Your task to perform on an android device: Check the news Image 0: 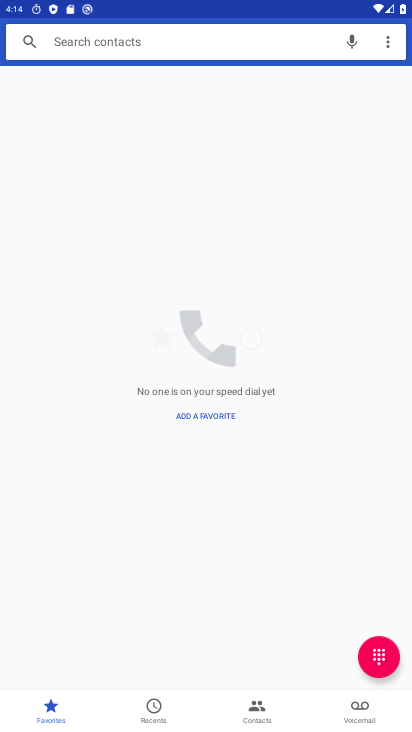
Step 0: press home button
Your task to perform on an android device: Check the news Image 1: 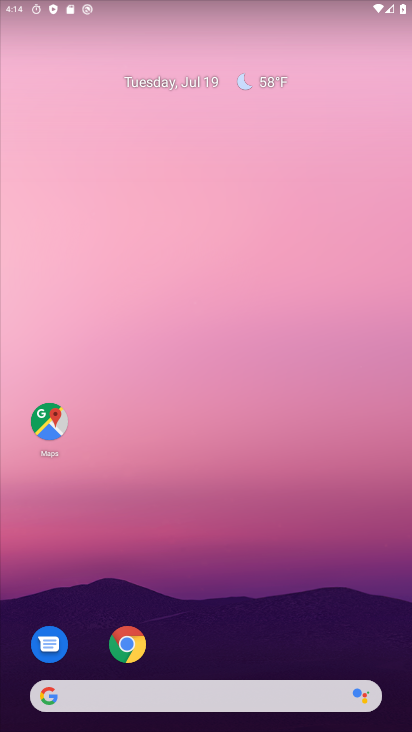
Step 1: drag from (274, 126) to (274, 87)
Your task to perform on an android device: Check the news Image 2: 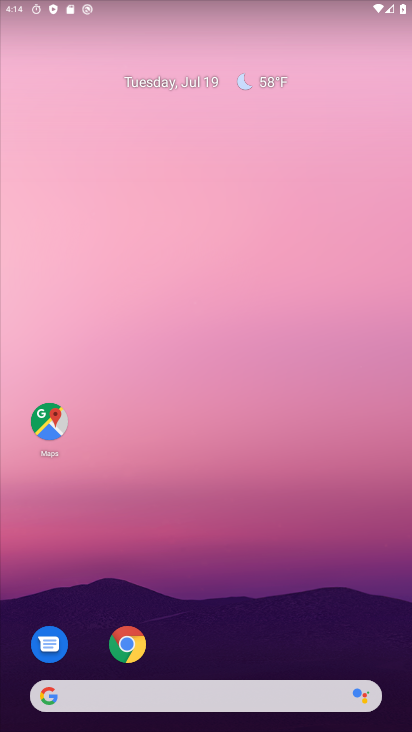
Step 2: drag from (297, 515) to (271, 56)
Your task to perform on an android device: Check the news Image 3: 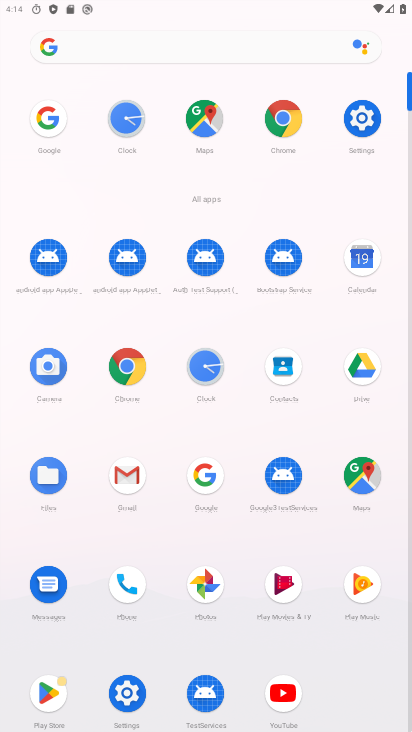
Step 3: click (281, 120)
Your task to perform on an android device: Check the news Image 4: 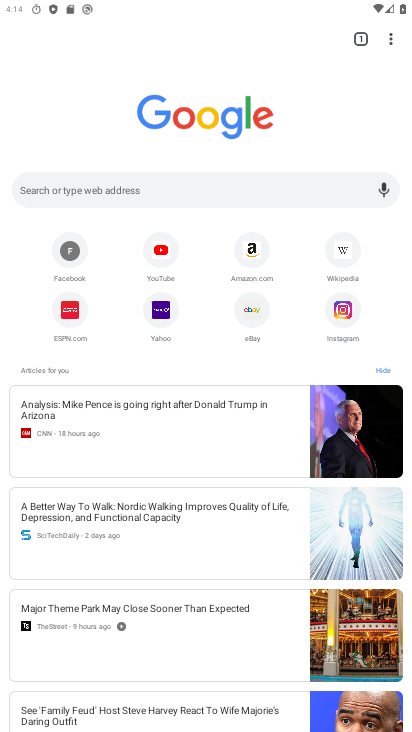
Step 4: click (249, 173)
Your task to perform on an android device: Check the news Image 5: 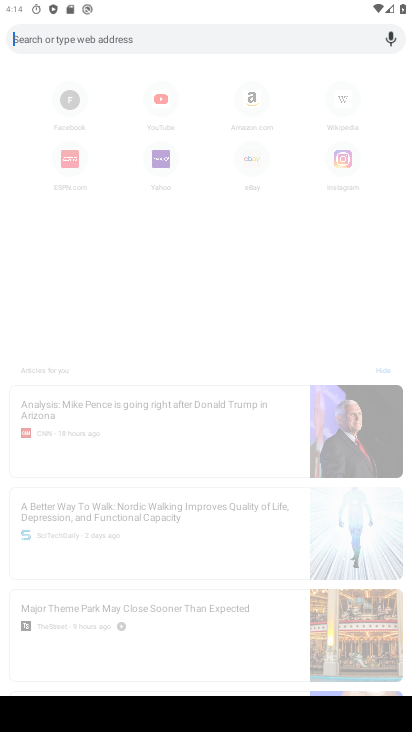
Step 5: type "news"
Your task to perform on an android device: Check the news Image 6: 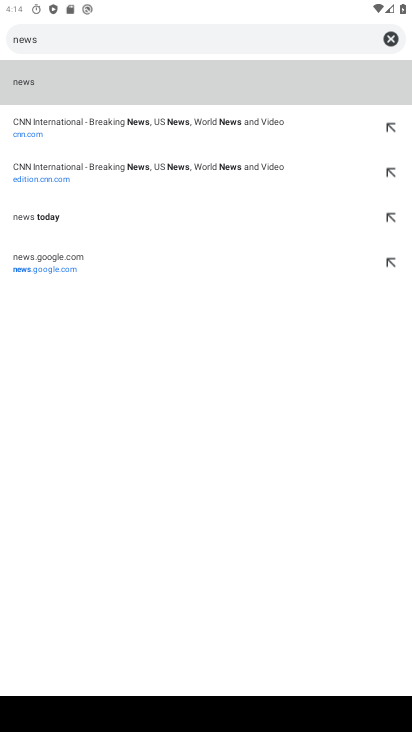
Step 6: click (17, 80)
Your task to perform on an android device: Check the news Image 7: 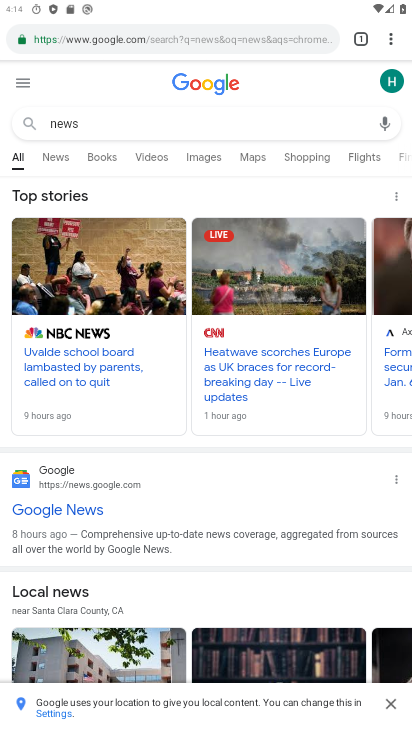
Step 7: task complete